Your task to perform on an android device: Check the weather Image 0: 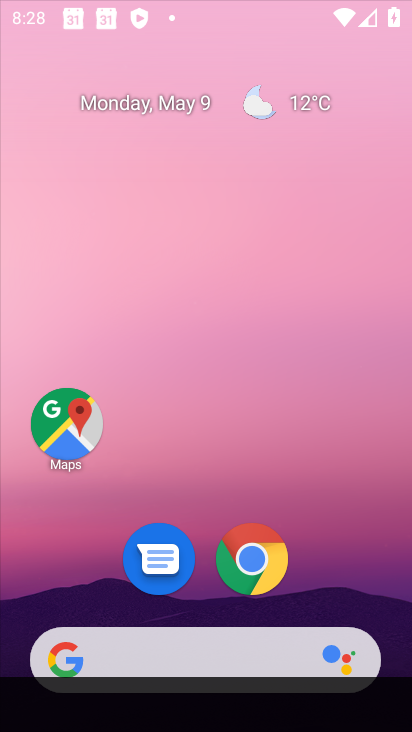
Step 0: drag from (327, 616) to (171, 153)
Your task to perform on an android device: Check the weather Image 1: 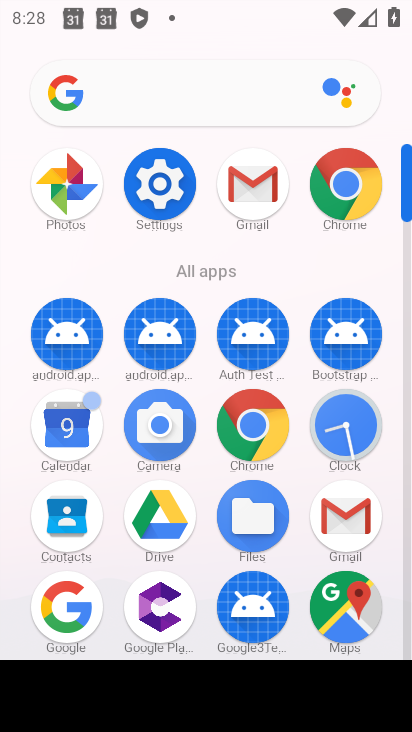
Step 1: drag from (190, 141) to (239, 515)
Your task to perform on an android device: Check the weather Image 2: 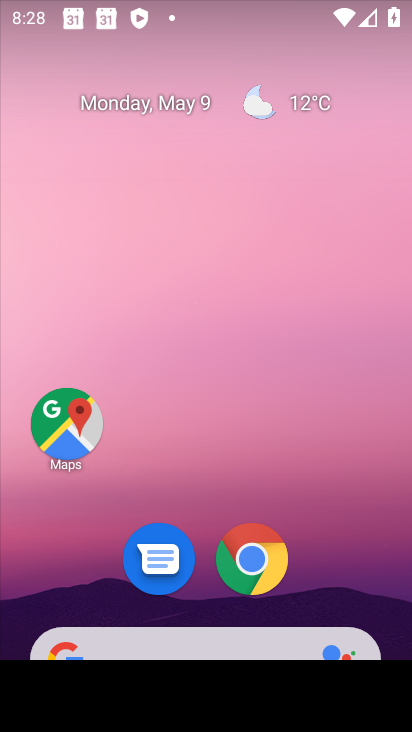
Step 2: drag from (184, 133) to (219, 486)
Your task to perform on an android device: Check the weather Image 3: 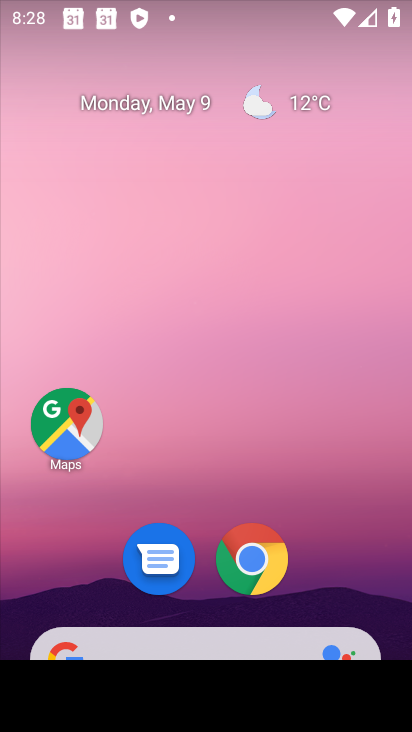
Step 3: click (252, 99)
Your task to perform on an android device: Check the weather Image 4: 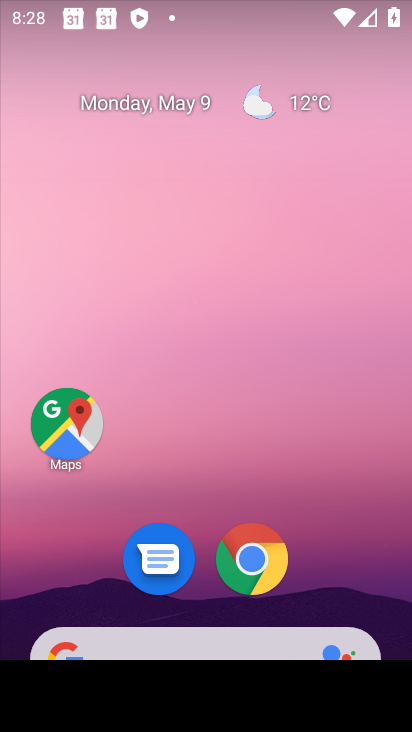
Step 4: click (253, 99)
Your task to perform on an android device: Check the weather Image 5: 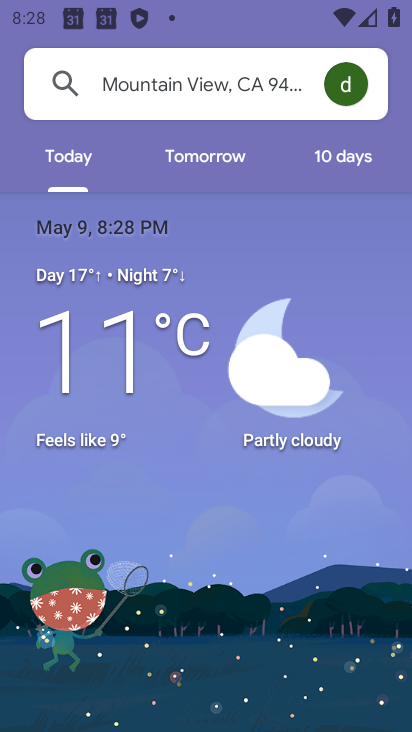
Step 5: task complete